Your task to perform on an android device: change text size in settings app Image 0: 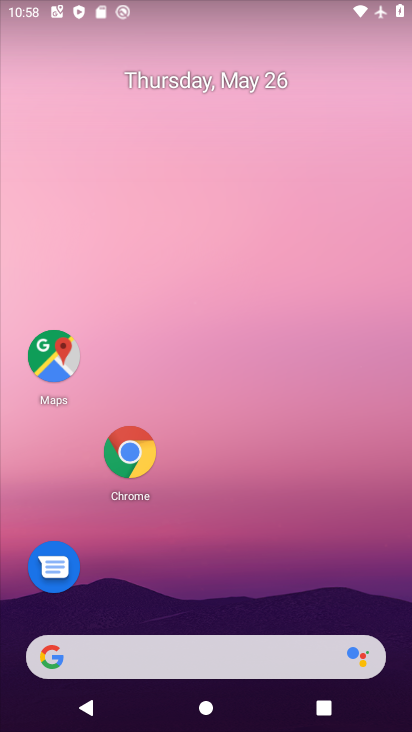
Step 0: press home button
Your task to perform on an android device: change text size in settings app Image 1: 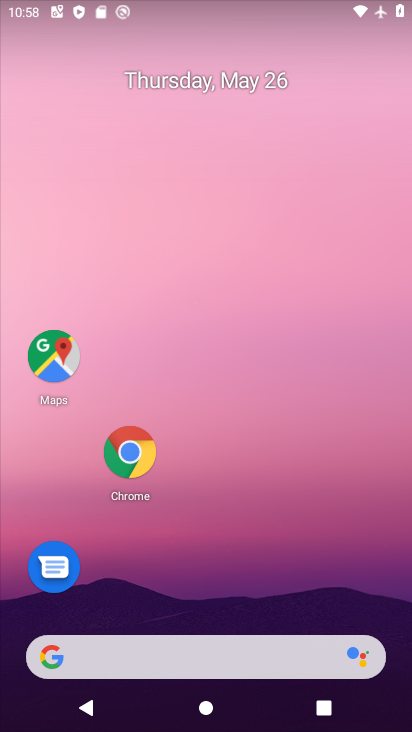
Step 1: drag from (170, 657) to (310, 24)
Your task to perform on an android device: change text size in settings app Image 2: 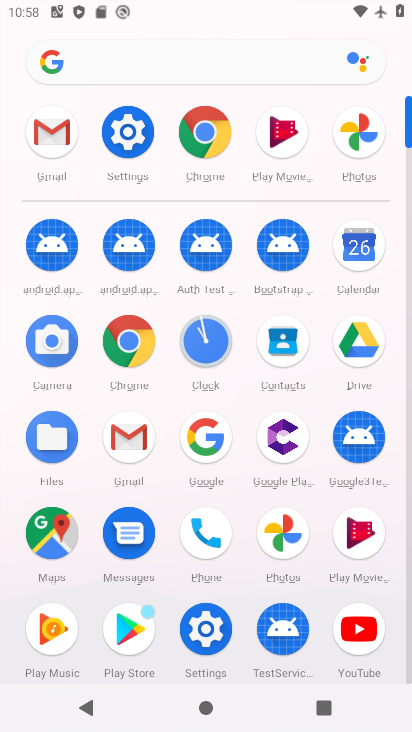
Step 2: click (117, 127)
Your task to perform on an android device: change text size in settings app Image 3: 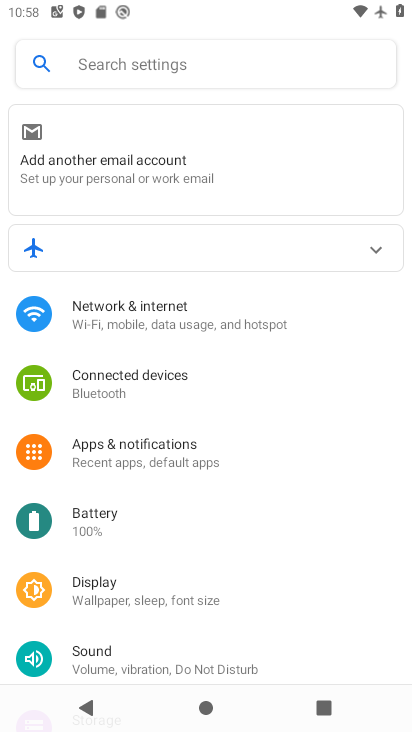
Step 3: drag from (244, 576) to (345, 105)
Your task to perform on an android device: change text size in settings app Image 4: 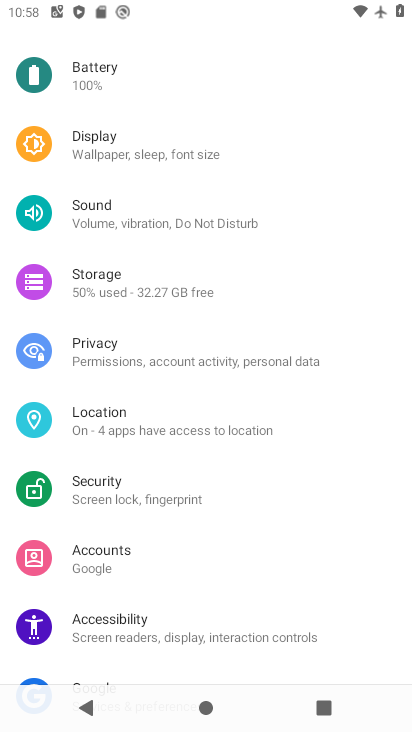
Step 4: drag from (196, 592) to (250, 352)
Your task to perform on an android device: change text size in settings app Image 5: 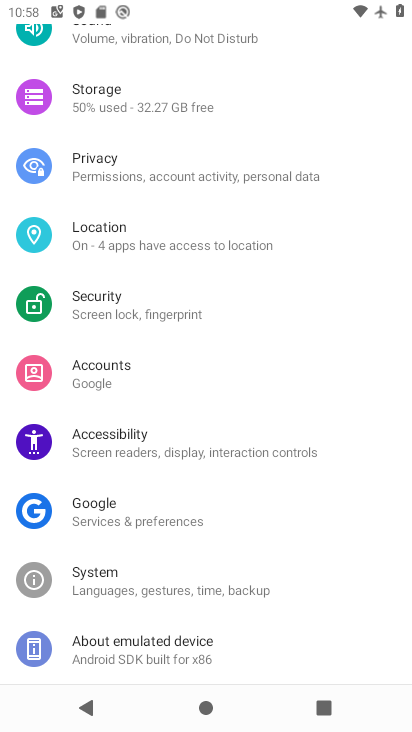
Step 5: drag from (307, 119) to (256, 392)
Your task to perform on an android device: change text size in settings app Image 6: 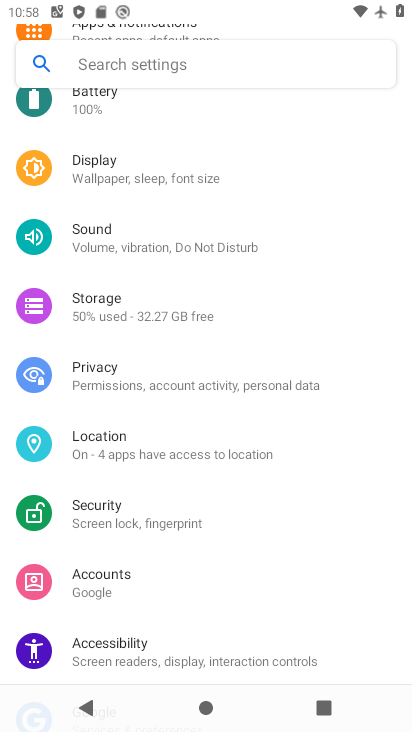
Step 6: click (295, 187)
Your task to perform on an android device: change text size in settings app Image 7: 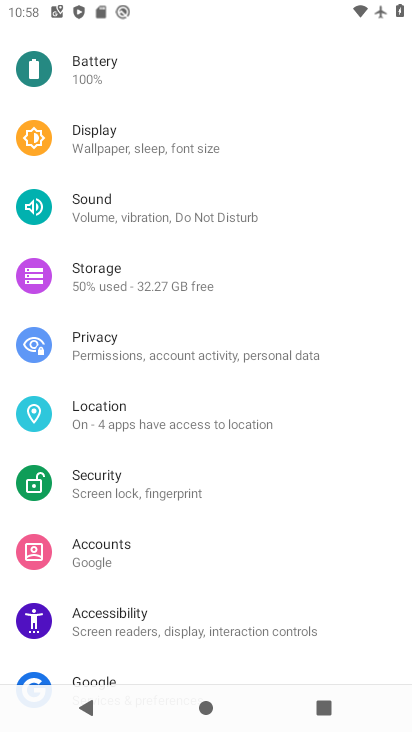
Step 7: click (147, 147)
Your task to perform on an android device: change text size in settings app Image 8: 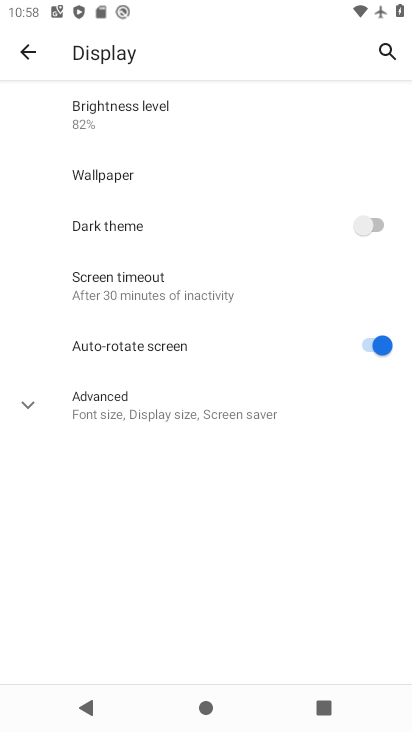
Step 8: click (149, 412)
Your task to perform on an android device: change text size in settings app Image 9: 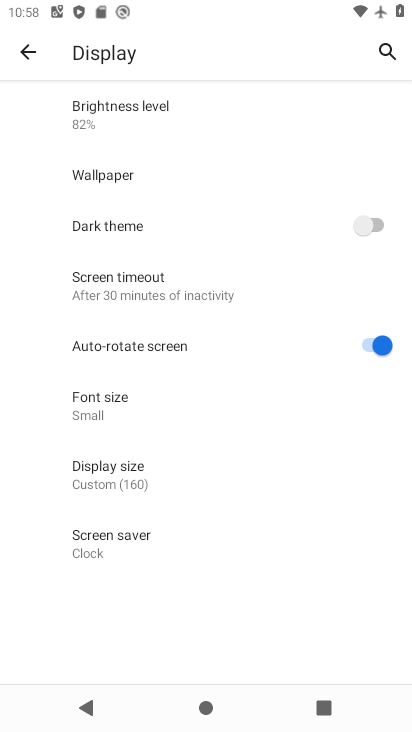
Step 9: click (99, 404)
Your task to perform on an android device: change text size in settings app Image 10: 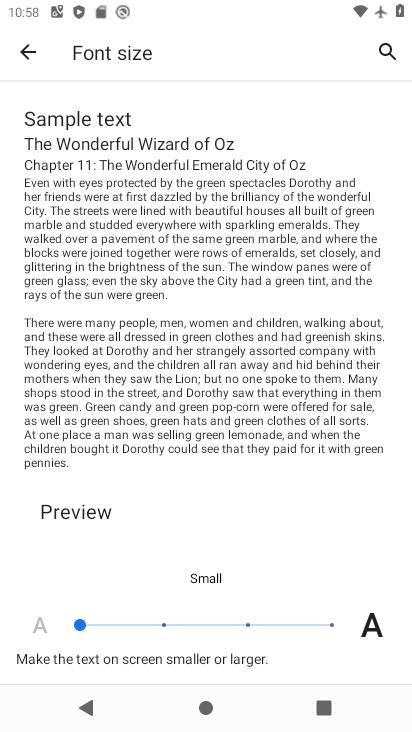
Step 10: click (163, 624)
Your task to perform on an android device: change text size in settings app Image 11: 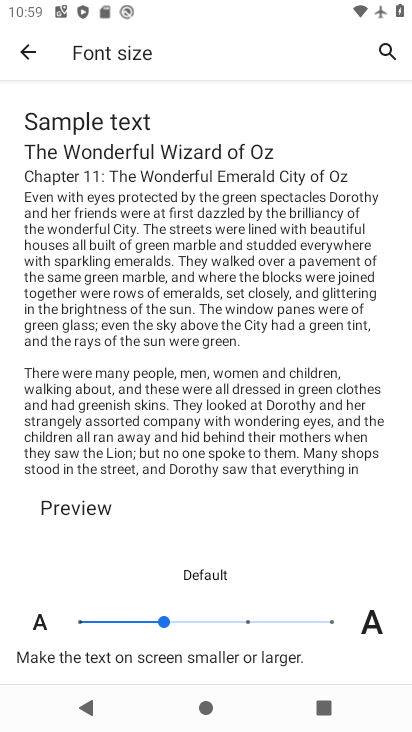
Step 11: task complete